Your task to perform on an android device: search for starred emails in the gmail app Image 0: 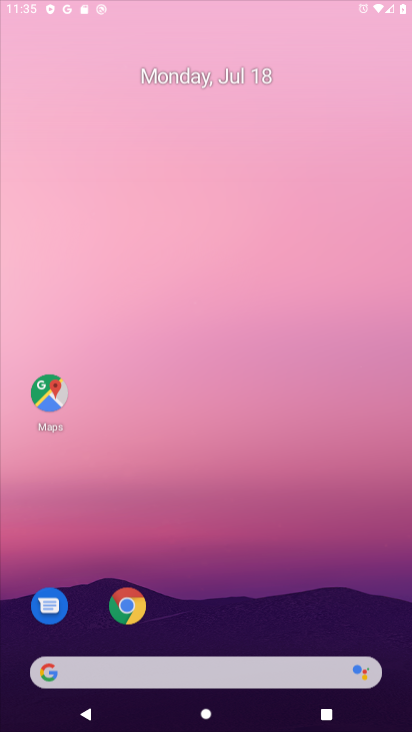
Step 0: press home button
Your task to perform on an android device: search for starred emails in the gmail app Image 1: 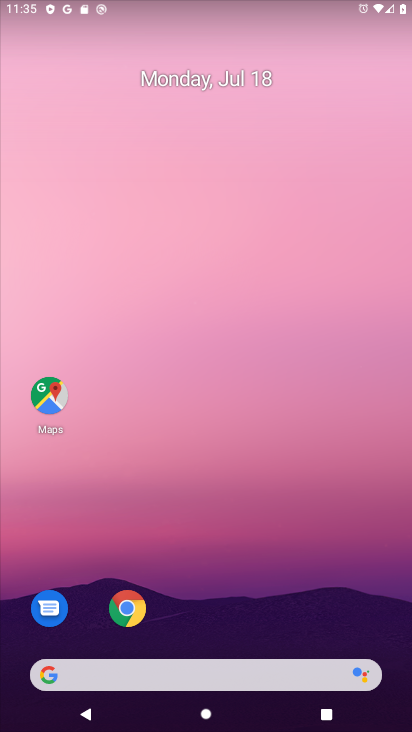
Step 1: drag from (219, 599) to (252, 113)
Your task to perform on an android device: search for starred emails in the gmail app Image 2: 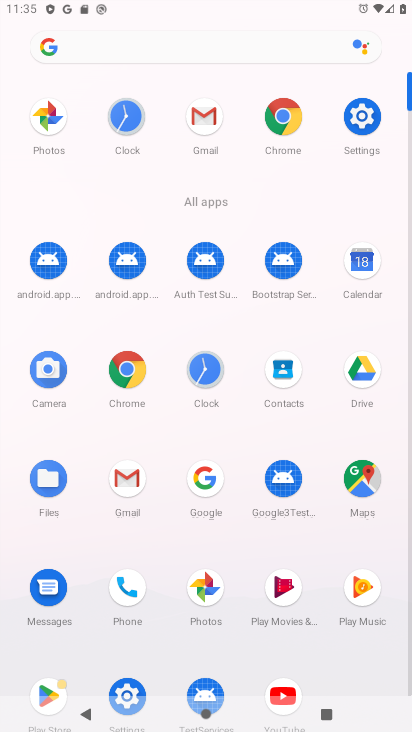
Step 2: click (205, 116)
Your task to perform on an android device: search for starred emails in the gmail app Image 3: 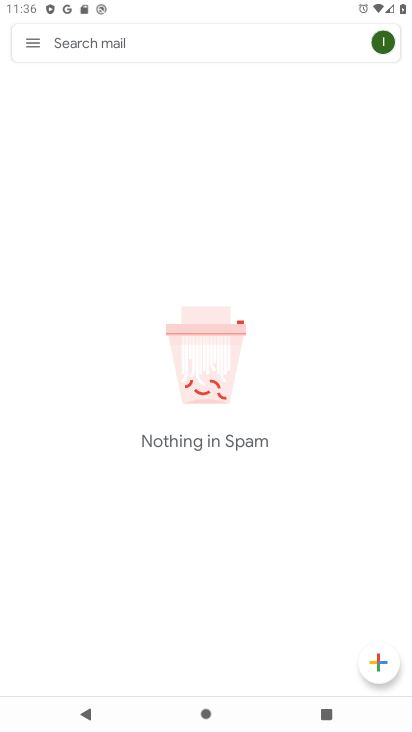
Step 3: click (32, 45)
Your task to perform on an android device: search for starred emails in the gmail app Image 4: 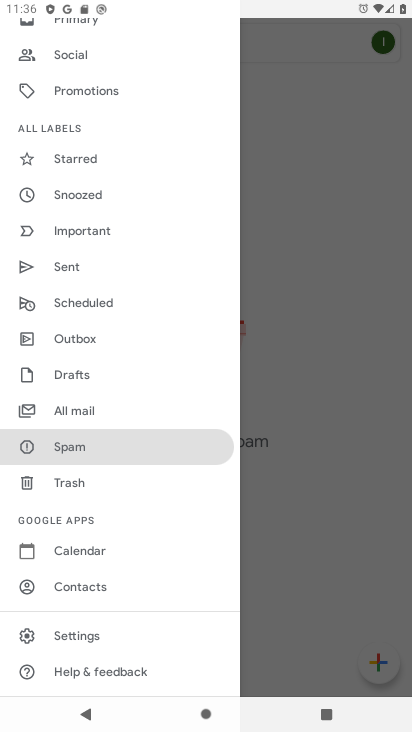
Step 4: click (78, 168)
Your task to perform on an android device: search for starred emails in the gmail app Image 5: 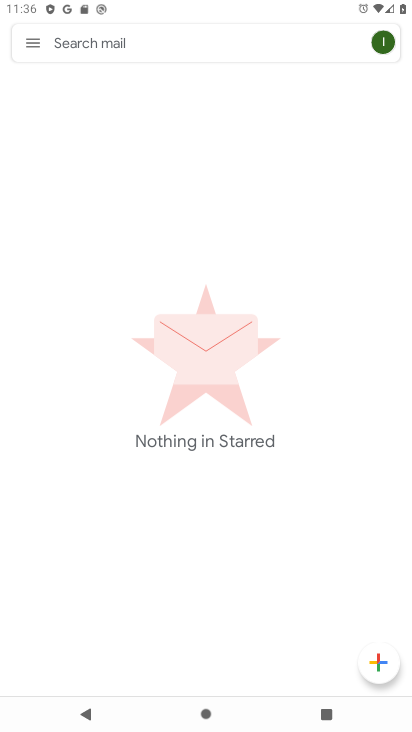
Step 5: task complete